Your task to perform on an android device: open sync settings in chrome Image 0: 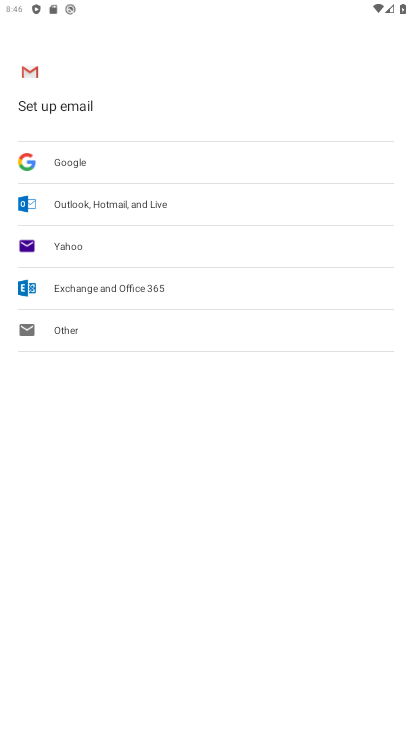
Step 0: press home button
Your task to perform on an android device: open sync settings in chrome Image 1: 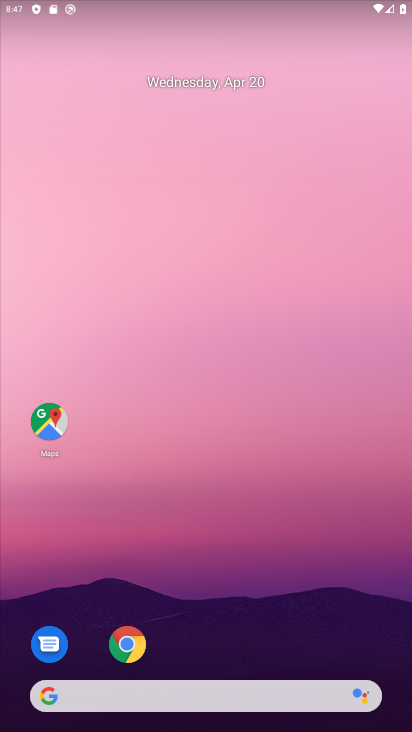
Step 1: click (133, 649)
Your task to perform on an android device: open sync settings in chrome Image 2: 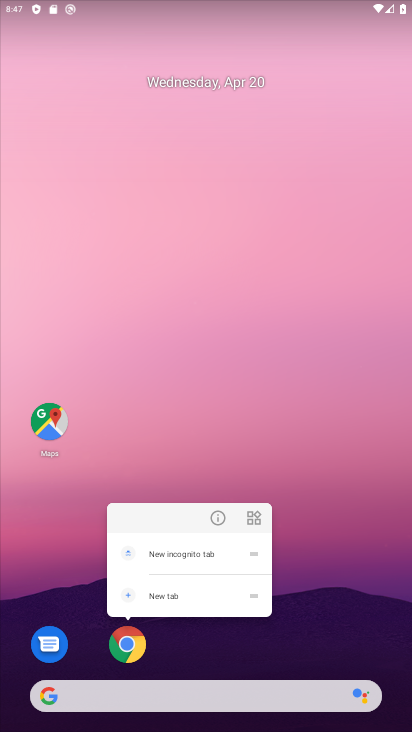
Step 2: click (131, 651)
Your task to perform on an android device: open sync settings in chrome Image 3: 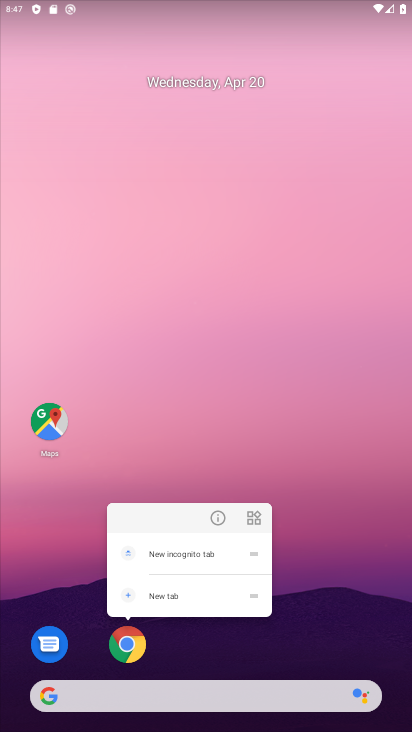
Step 3: click (131, 651)
Your task to perform on an android device: open sync settings in chrome Image 4: 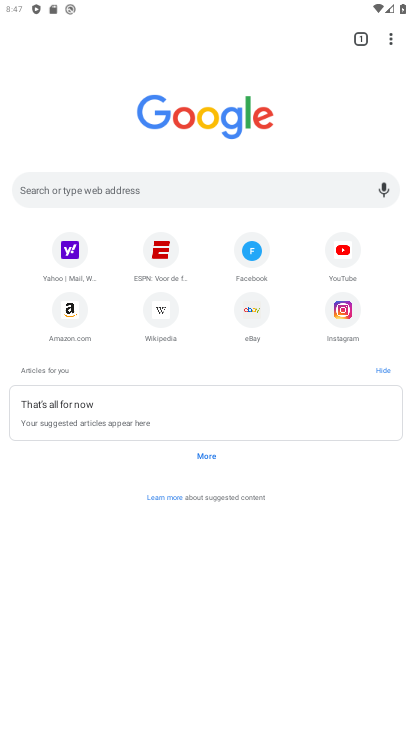
Step 4: click (391, 41)
Your task to perform on an android device: open sync settings in chrome Image 5: 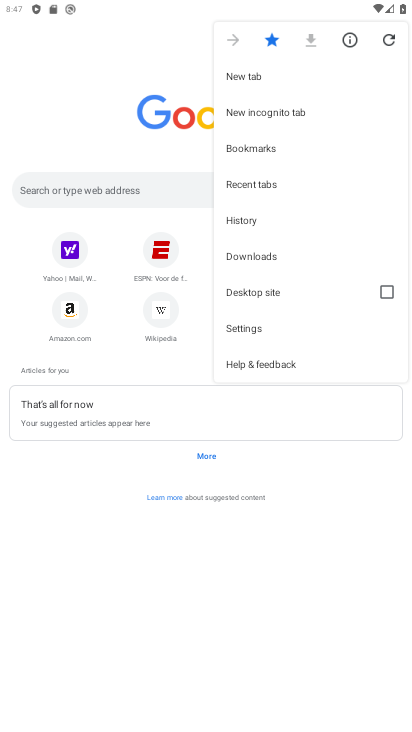
Step 5: click (257, 330)
Your task to perform on an android device: open sync settings in chrome Image 6: 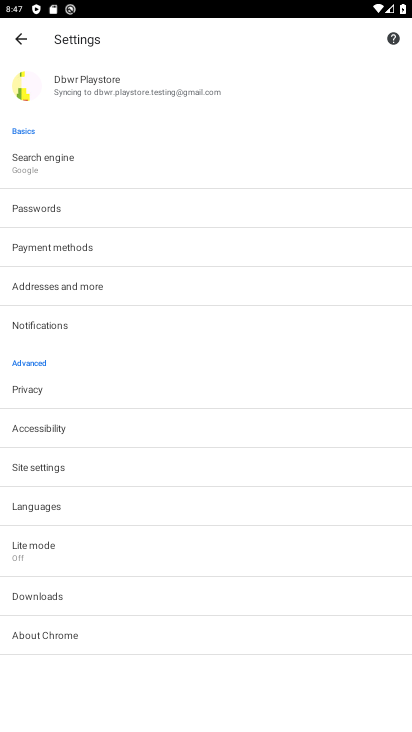
Step 6: click (159, 92)
Your task to perform on an android device: open sync settings in chrome Image 7: 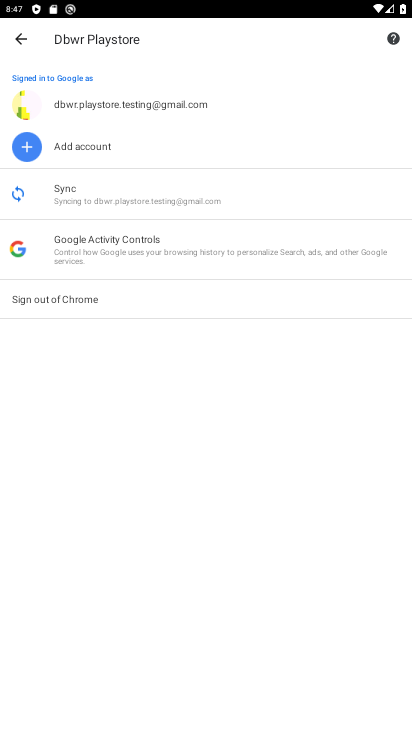
Step 7: click (118, 207)
Your task to perform on an android device: open sync settings in chrome Image 8: 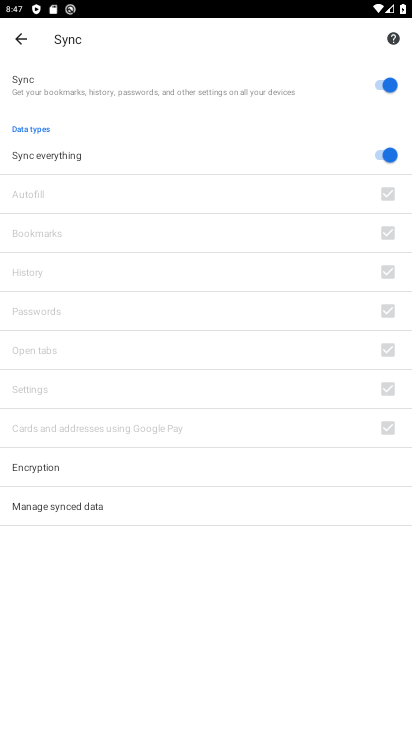
Step 8: task complete